Your task to perform on an android device: turn vacation reply on in the gmail app Image 0: 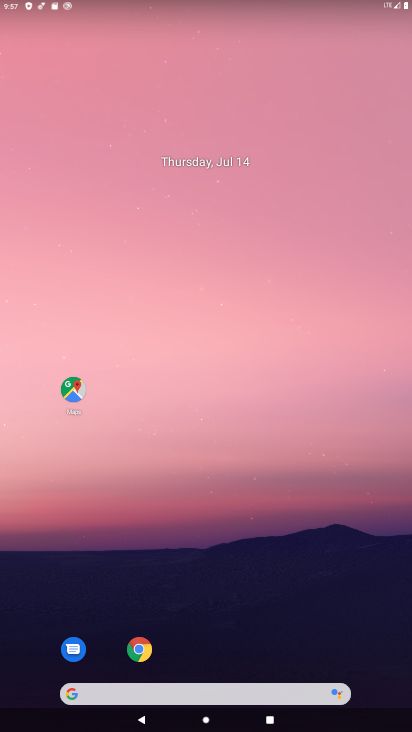
Step 0: drag from (207, 617) to (228, 253)
Your task to perform on an android device: turn vacation reply on in the gmail app Image 1: 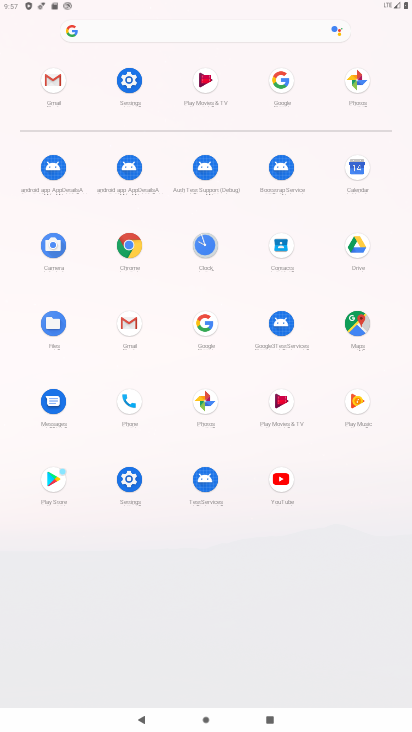
Step 1: click (66, 83)
Your task to perform on an android device: turn vacation reply on in the gmail app Image 2: 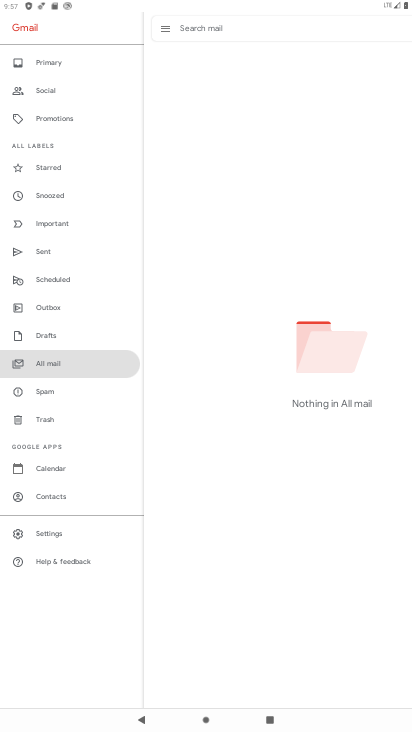
Step 2: click (49, 535)
Your task to perform on an android device: turn vacation reply on in the gmail app Image 3: 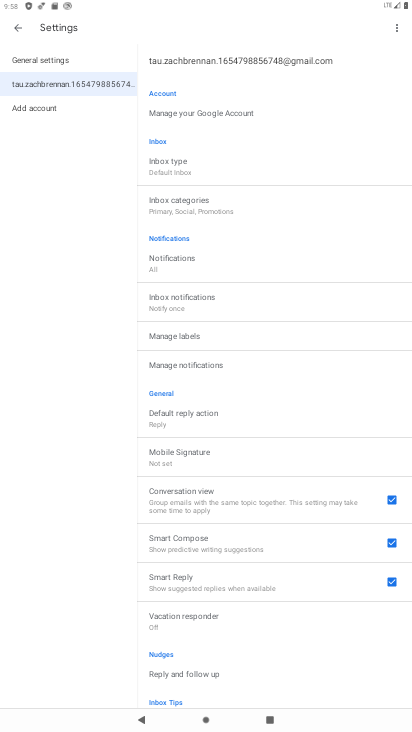
Step 3: drag from (210, 398) to (211, 208)
Your task to perform on an android device: turn vacation reply on in the gmail app Image 4: 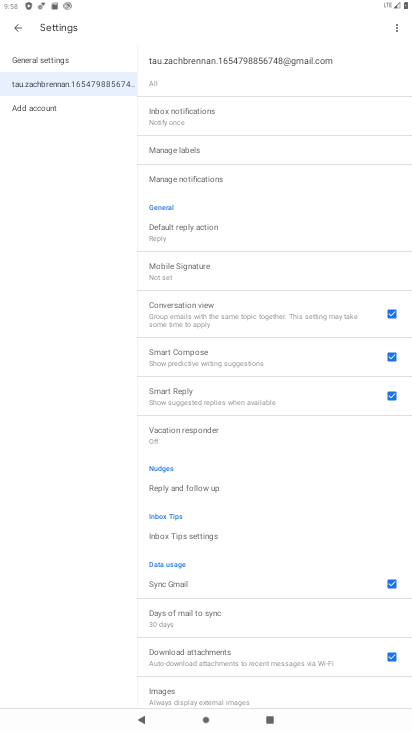
Step 4: click (214, 431)
Your task to perform on an android device: turn vacation reply on in the gmail app Image 5: 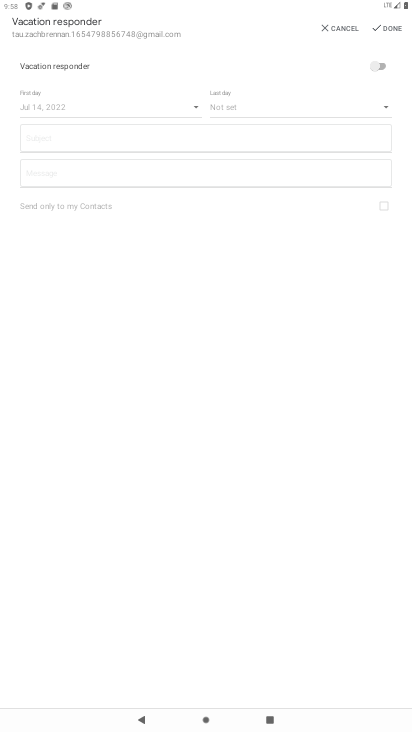
Step 5: click (383, 68)
Your task to perform on an android device: turn vacation reply on in the gmail app Image 6: 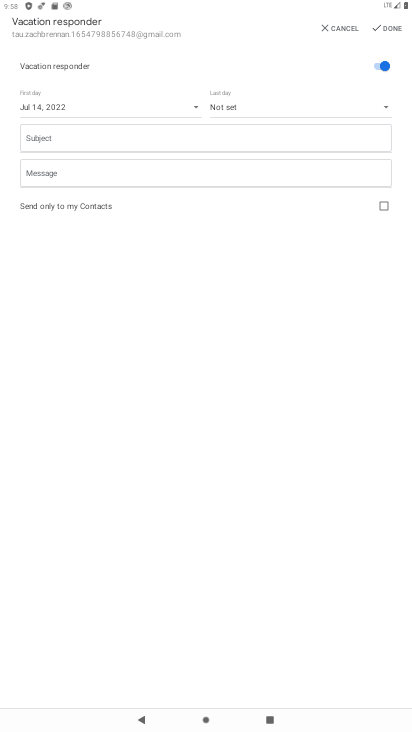
Step 6: task complete